Your task to perform on an android device: toggle translation in the chrome app Image 0: 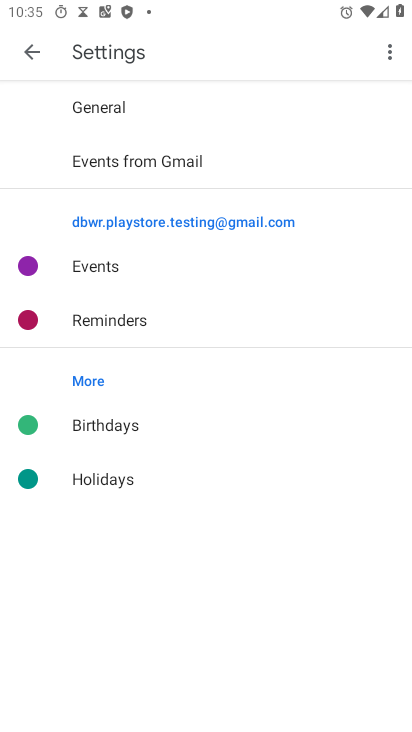
Step 0: press home button
Your task to perform on an android device: toggle translation in the chrome app Image 1: 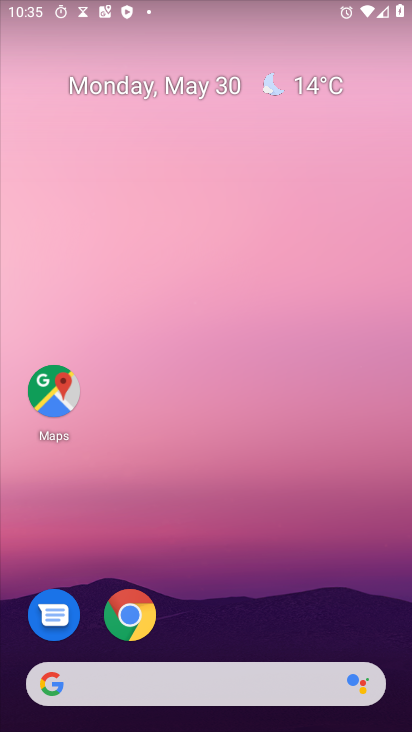
Step 1: drag from (351, 592) to (337, 85)
Your task to perform on an android device: toggle translation in the chrome app Image 2: 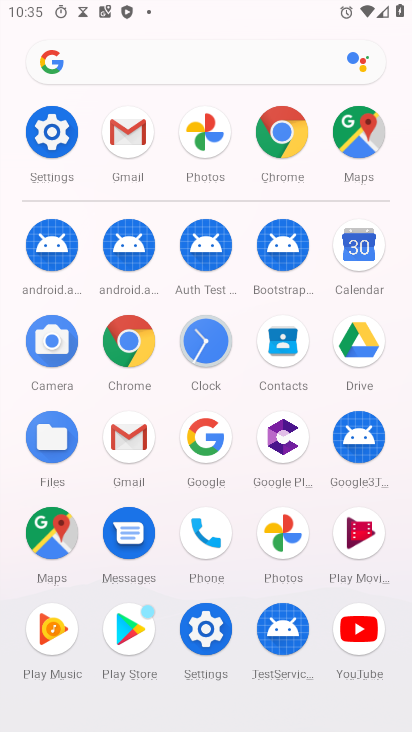
Step 2: click (267, 142)
Your task to perform on an android device: toggle translation in the chrome app Image 3: 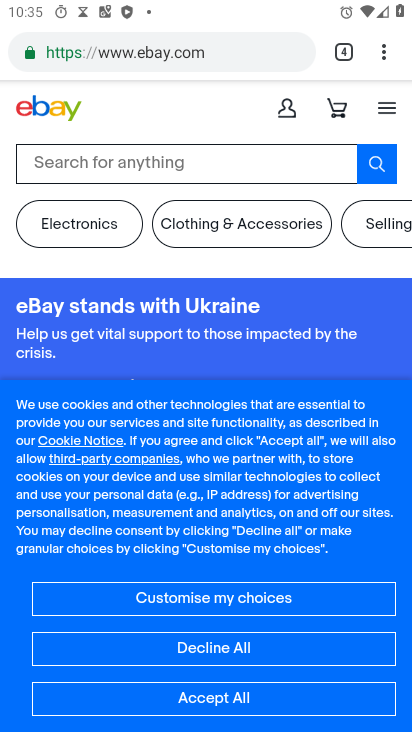
Step 3: drag from (385, 60) to (262, 609)
Your task to perform on an android device: toggle translation in the chrome app Image 4: 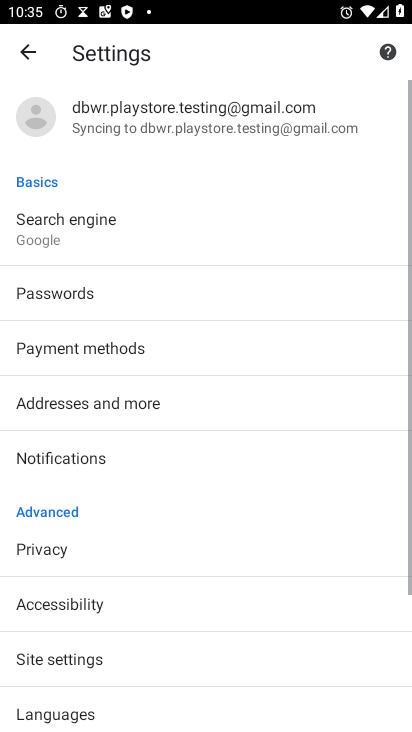
Step 4: drag from (212, 678) to (295, 177)
Your task to perform on an android device: toggle translation in the chrome app Image 5: 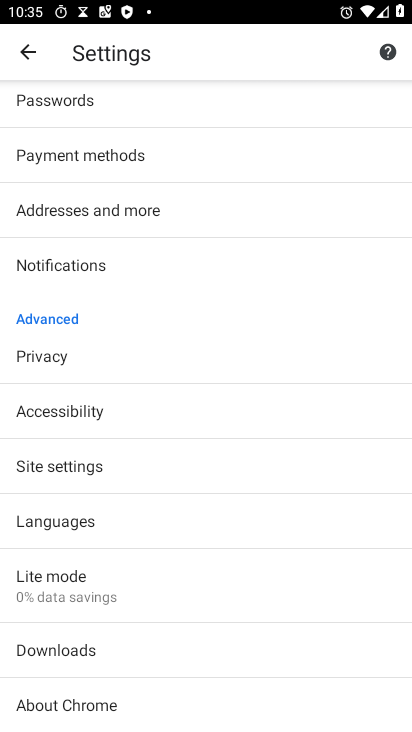
Step 5: click (89, 512)
Your task to perform on an android device: toggle translation in the chrome app Image 6: 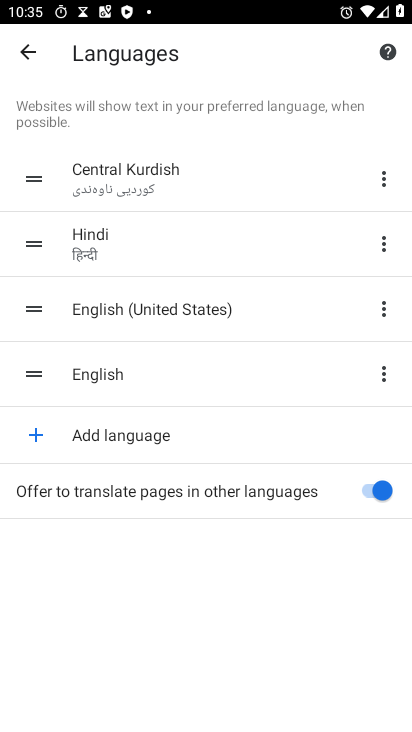
Step 6: click (372, 480)
Your task to perform on an android device: toggle translation in the chrome app Image 7: 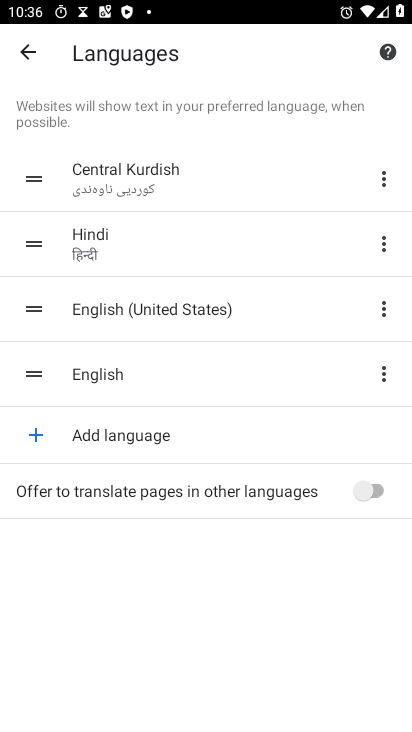
Step 7: task complete